Your task to perform on an android device: turn pop-ups off in chrome Image 0: 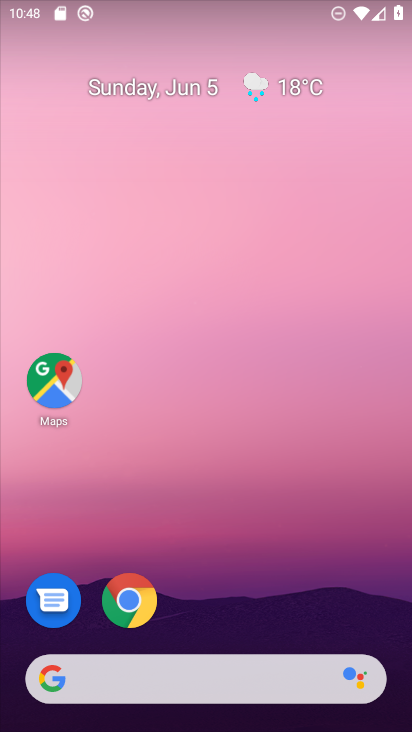
Step 0: click (100, 593)
Your task to perform on an android device: turn pop-ups off in chrome Image 1: 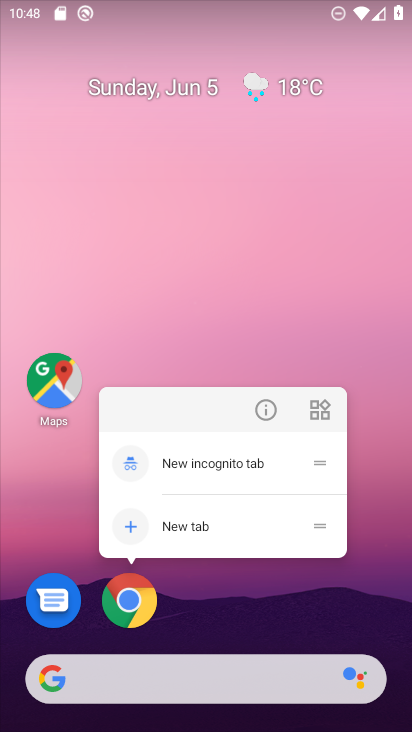
Step 1: click (115, 599)
Your task to perform on an android device: turn pop-ups off in chrome Image 2: 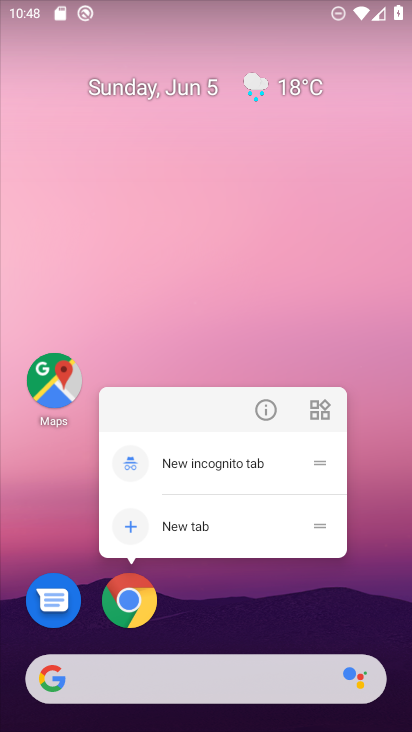
Step 2: click (125, 606)
Your task to perform on an android device: turn pop-ups off in chrome Image 3: 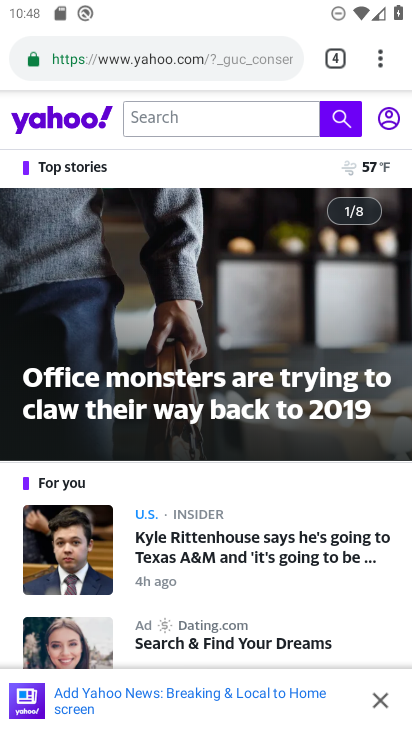
Step 3: drag from (381, 60) to (166, 626)
Your task to perform on an android device: turn pop-ups off in chrome Image 4: 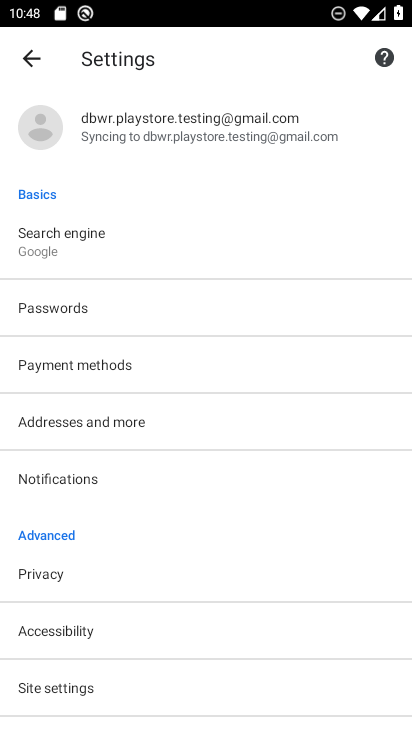
Step 4: click (96, 685)
Your task to perform on an android device: turn pop-ups off in chrome Image 5: 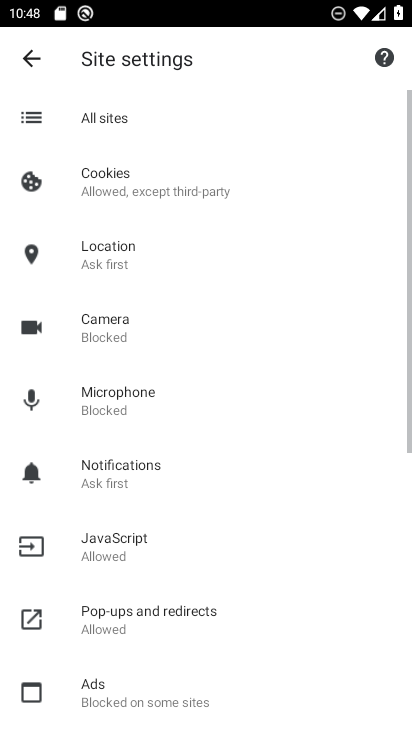
Step 5: click (139, 605)
Your task to perform on an android device: turn pop-ups off in chrome Image 6: 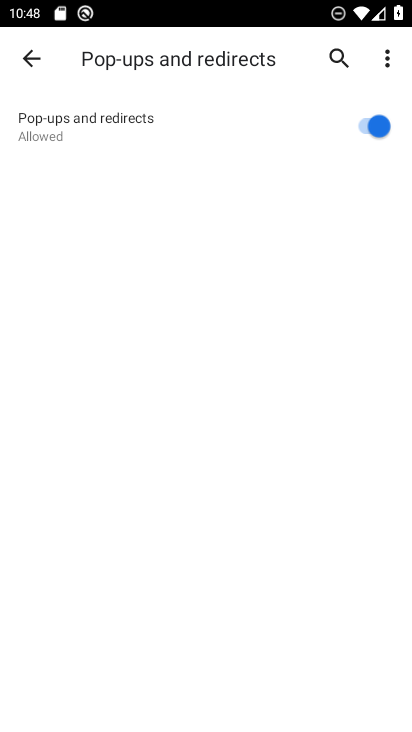
Step 6: click (363, 129)
Your task to perform on an android device: turn pop-ups off in chrome Image 7: 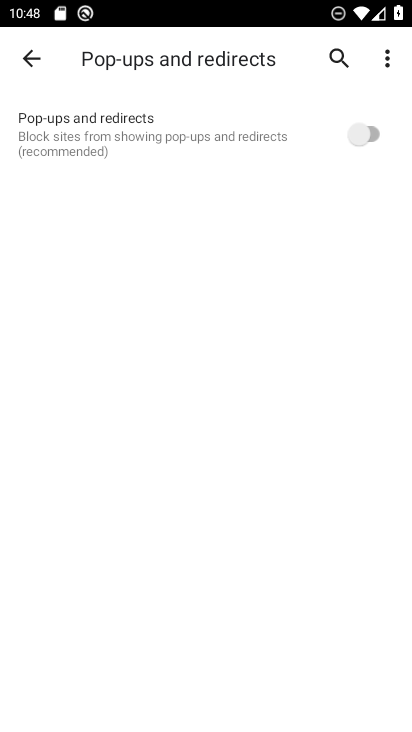
Step 7: task complete